Your task to perform on an android device: turn on wifi Image 0: 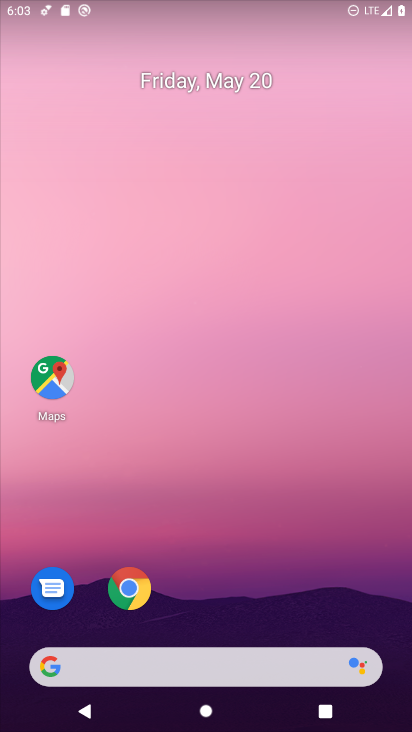
Step 0: drag from (193, 596) to (342, 15)
Your task to perform on an android device: turn on wifi Image 1: 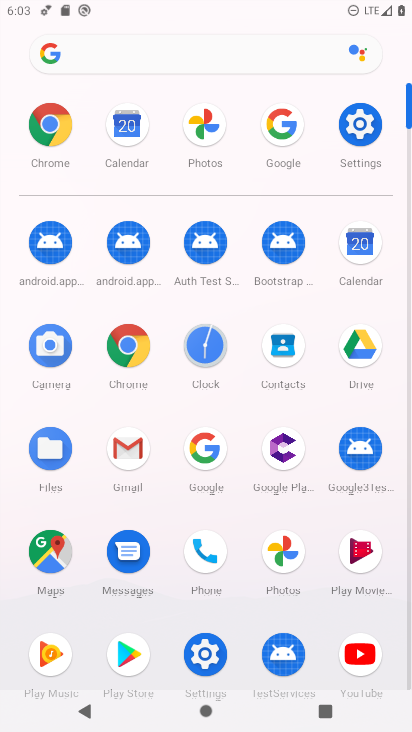
Step 1: click (369, 152)
Your task to perform on an android device: turn on wifi Image 2: 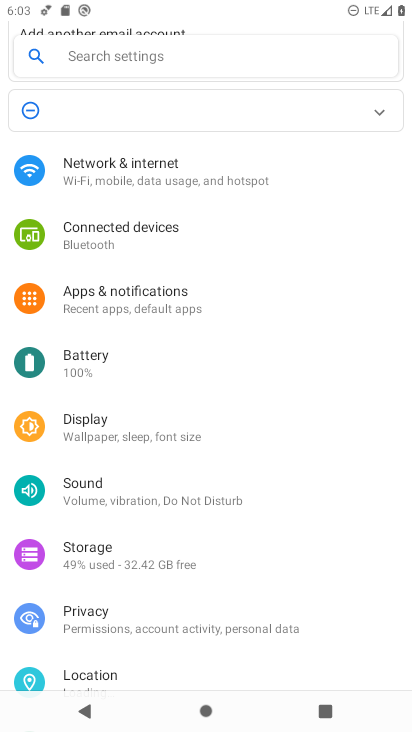
Step 2: click (187, 176)
Your task to perform on an android device: turn on wifi Image 3: 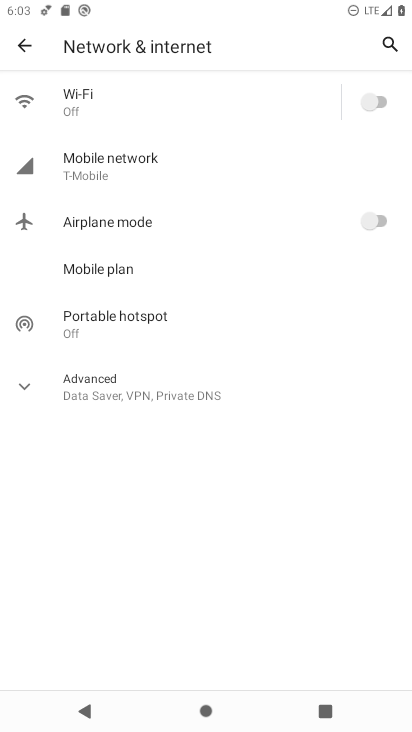
Step 3: click (385, 105)
Your task to perform on an android device: turn on wifi Image 4: 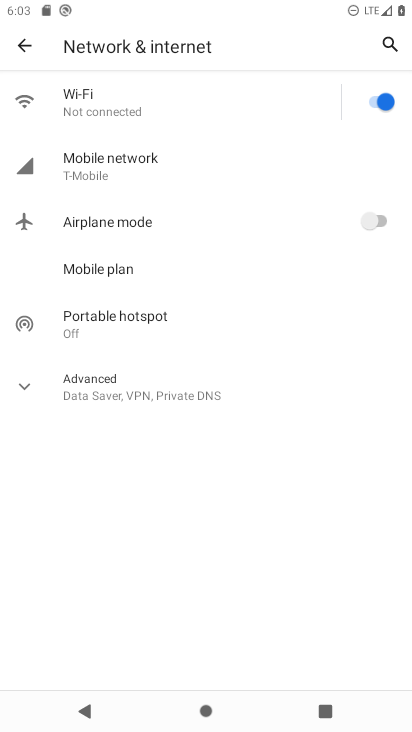
Step 4: task complete